Your task to perform on an android device: Go to wifi settings Image 0: 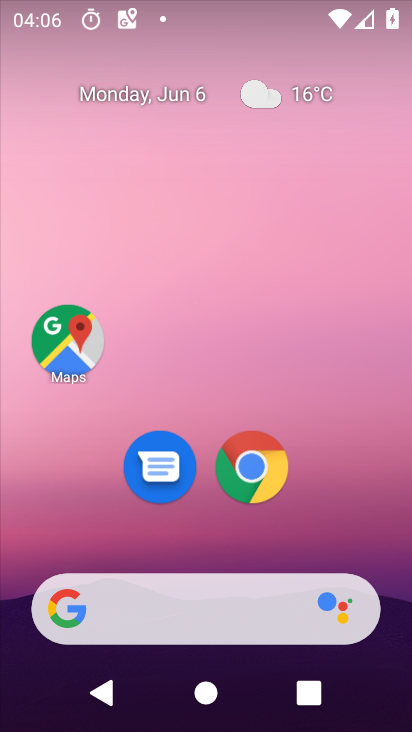
Step 0: drag from (213, 534) to (227, 2)
Your task to perform on an android device: Go to wifi settings Image 1: 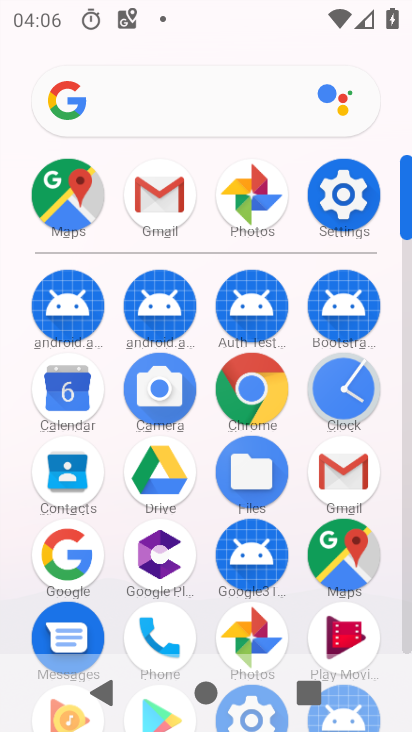
Step 1: click (344, 187)
Your task to perform on an android device: Go to wifi settings Image 2: 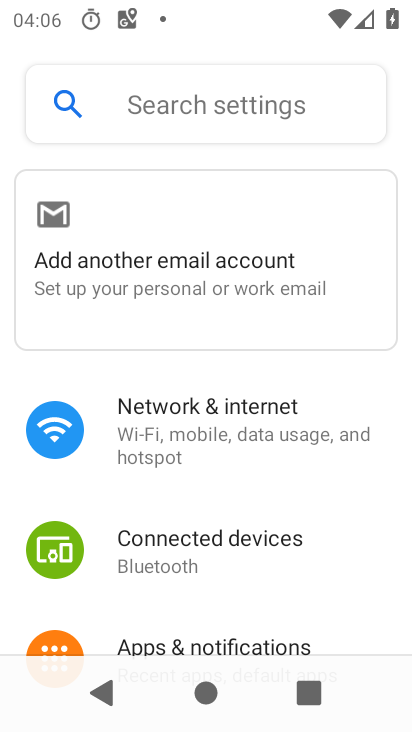
Step 2: click (207, 436)
Your task to perform on an android device: Go to wifi settings Image 3: 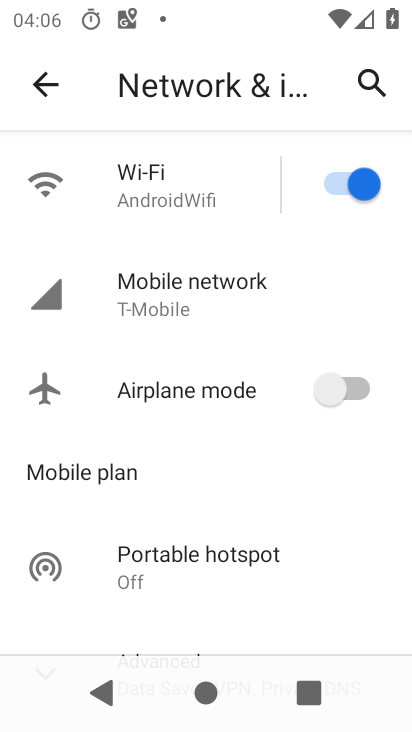
Step 3: click (227, 186)
Your task to perform on an android device: Go to wifi settings Image 4: 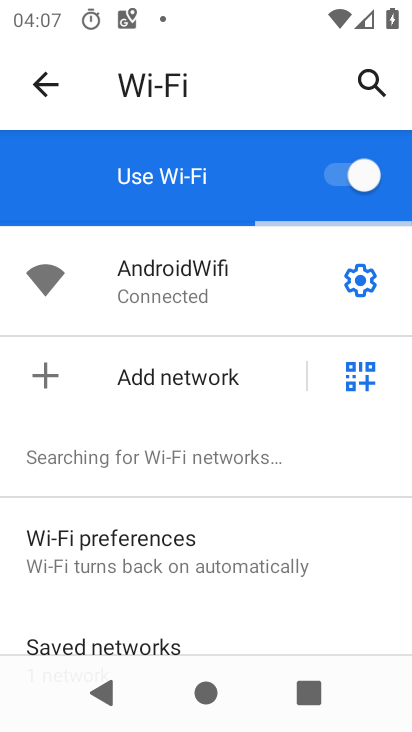
Step 4: task complete